Your task to perform on an android device: refresh tabs in the chrome app Image 0: 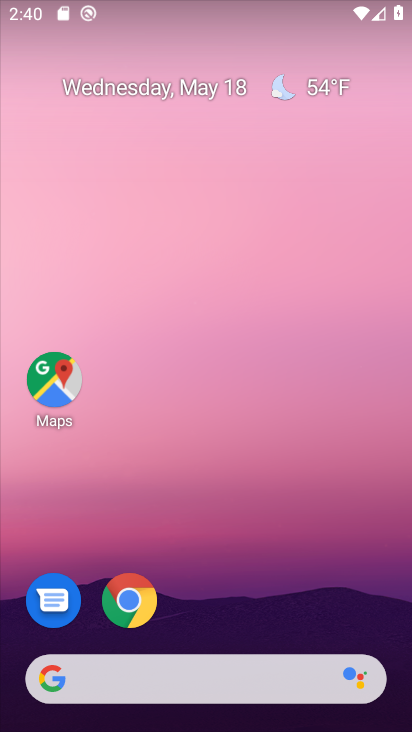
Step 0: click (132, 606)
Your task to perform on an android device: refresh tabs in the chrome app Image 1: 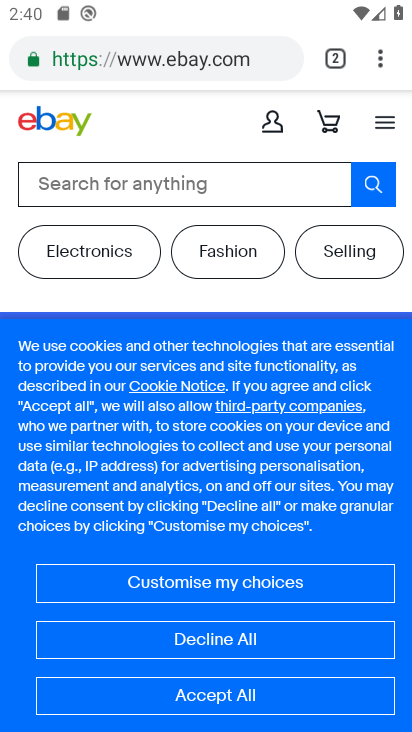
Step 1: click (377, 60)
Your task to perform on an android device: refresh tabs in the chrome app Image 2: 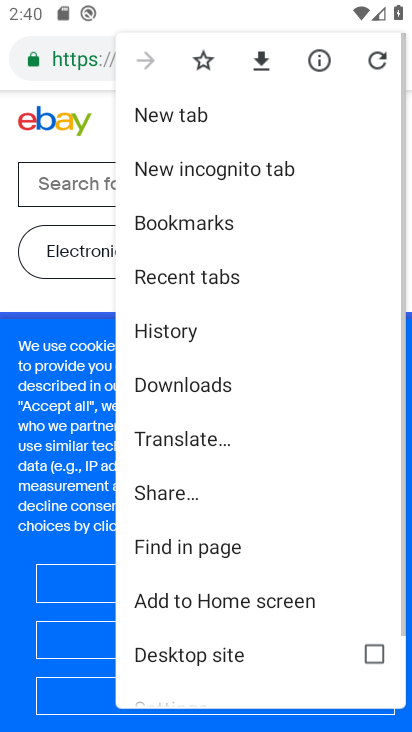
Step 2: click (382, 67)
Your task to perform on an android device: refresh tabs in the chrome app Image 3: 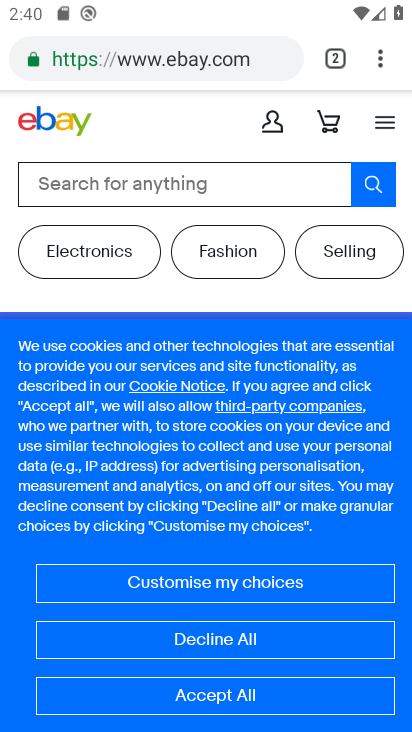
Step 3: task complete